Your task to perform on an android device: Go to CNN.com Image 0: 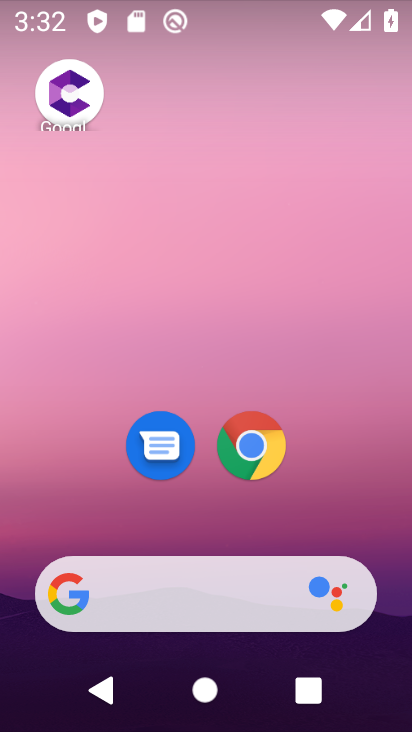
Step 0: click (263, 432)
Your task to perform on an android device: Go to CNN.com Image 1: 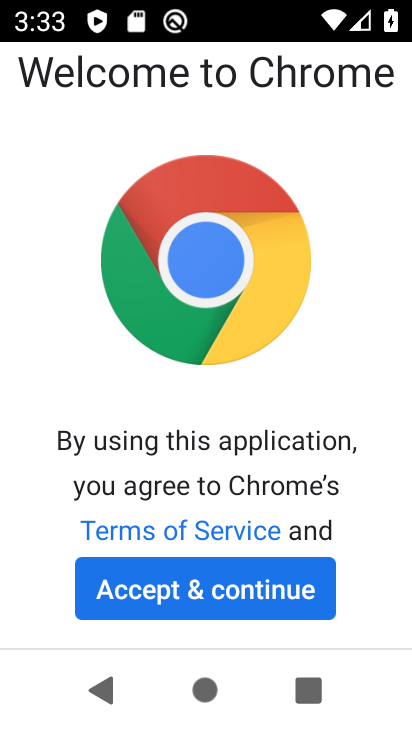
Step 1: click (151, 604)
Your task to perform on an android device: Go to CNN.com Image 2: 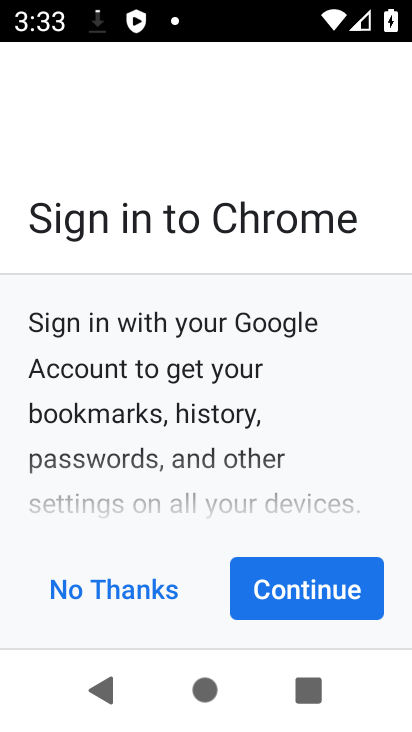
Step 2: click (265, 635)
Your task to perform on an android device: Go to CNN.com Image 3: 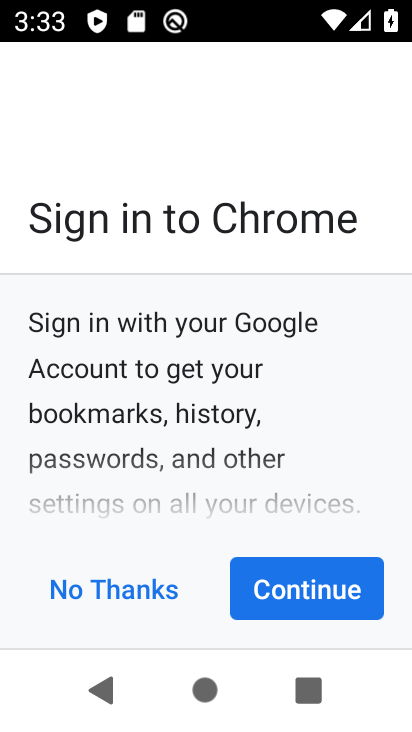
Step 3: click (297, 605)
Your task to perform on an android device: Go to CNN.com Image 4: 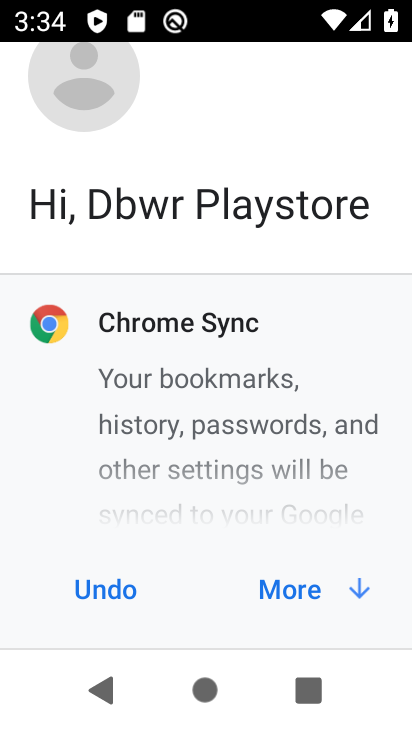
Step 4: click (326, 602)
Your task to perform on an android device: Go to CNN.com Image 5: 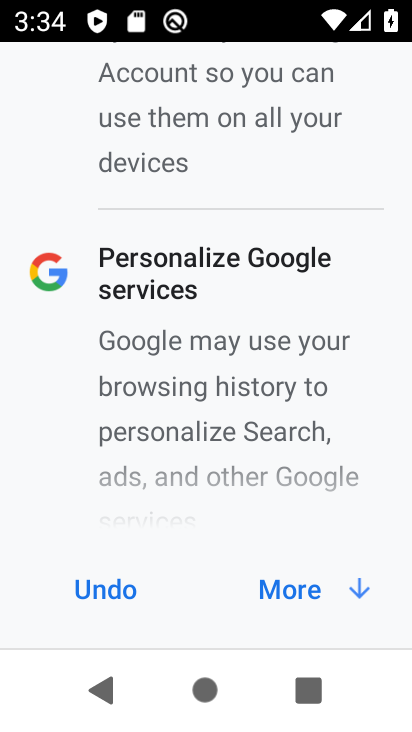
Step 5: click (326, 602)
Your task to perform on an android device: Go to CNN.com Image 6: 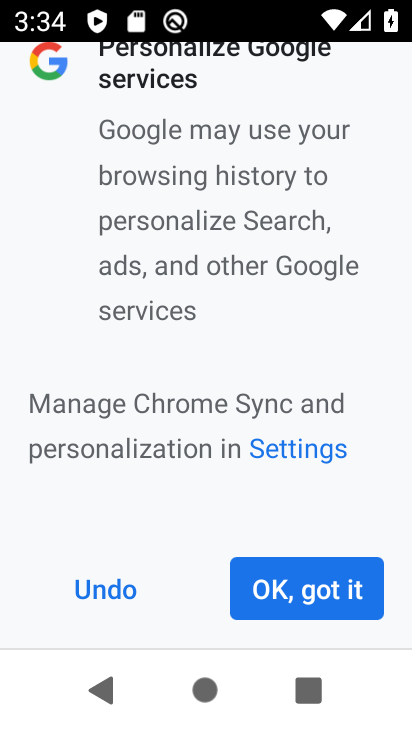
Step 6: click (326, 602)
Your task to perform on an android device: Go to CNN.com Image 7: 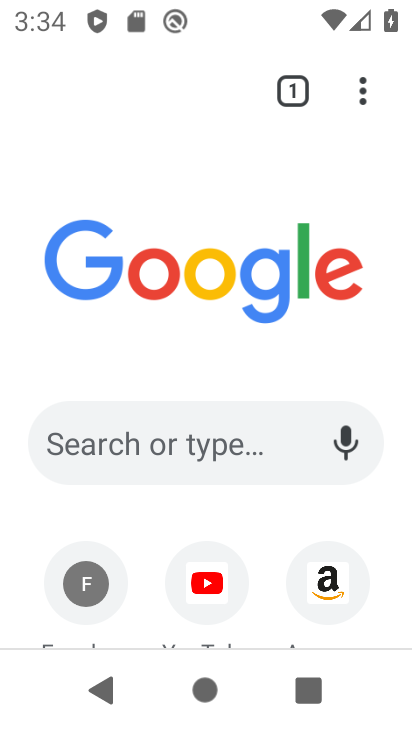
Step 7: click (237, 420)
Your task to perform on an android device: Go to CNN.com Image 8: 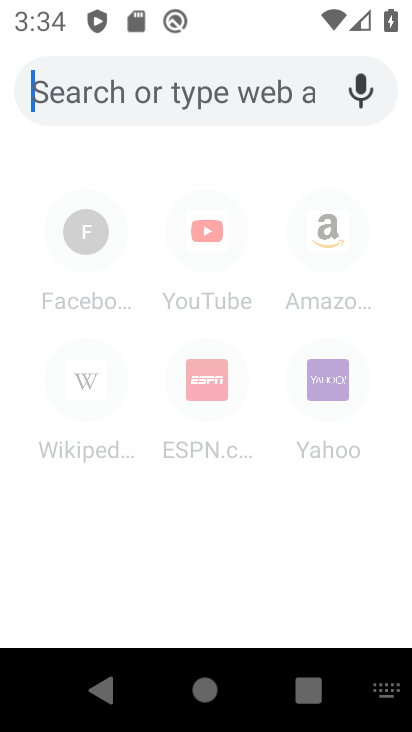
Step 8: type "cnn.com"
Your task to perform on an android device: Go to CNN.com Image 9: 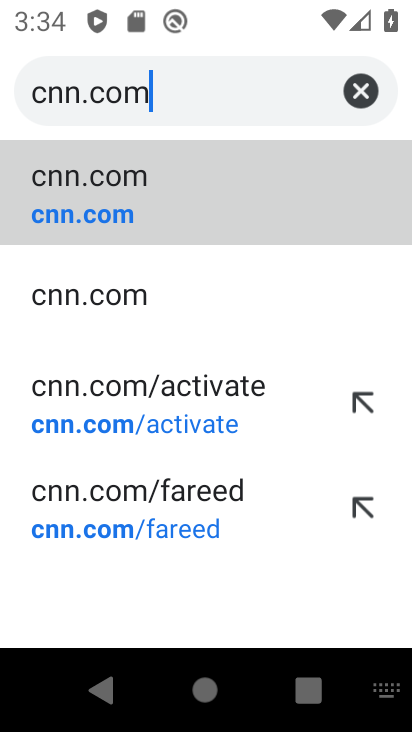
Step 9: click (239, 211)
Your task to perform on an android device: Go to CNN.com Image 10: 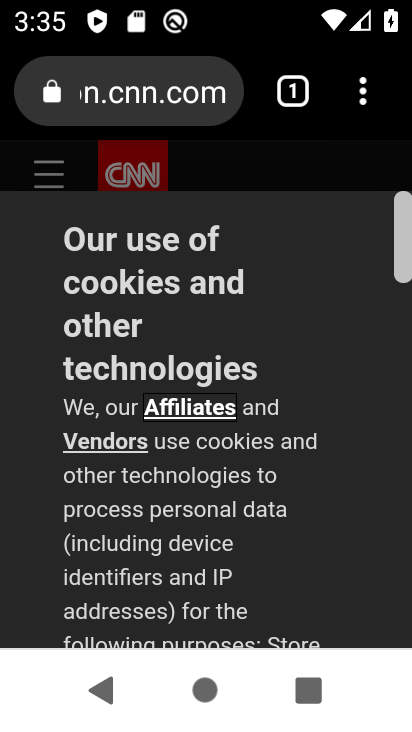
Step 10: task complete